Your task to perform on an android device: Set an alarm for 8am Image 0: 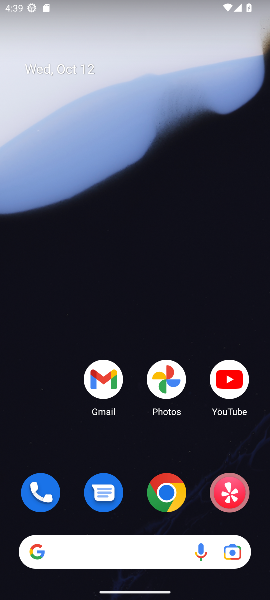
Step 0: drag from (140, 450) to (159, 72)
Your task to perform on an android device: Set an alarm for 8am Image 1: 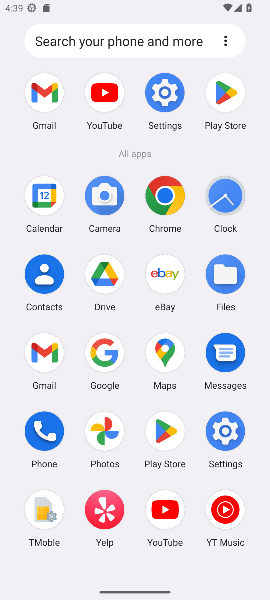
Step 1: click (229, 195)
Your task to perform on an android device: Set an alarm for 8am Image 2: 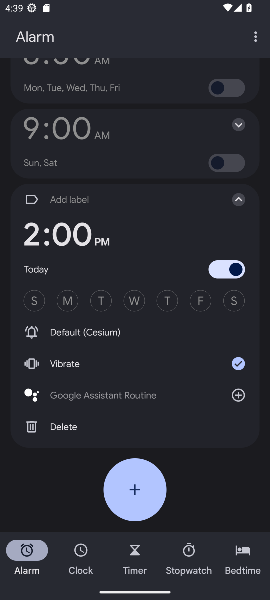
Step 2: click (135, 492)
Your task to perform on an android device: Set an alarm for 8am Image 3: 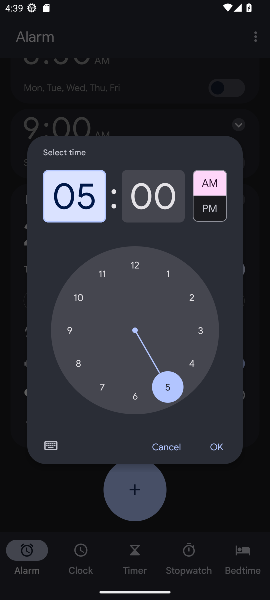
Step 3: click (76, 366)
Your task to perform on an android device: Set an alarm for 8am Image 4: 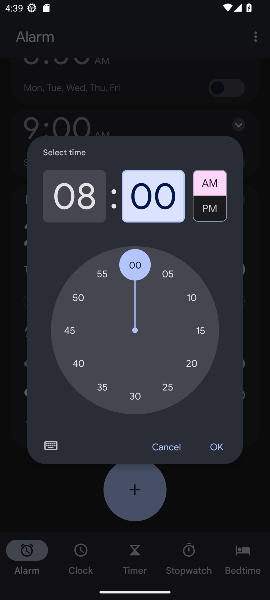
Step 4: click (219, 175)
Your task to perform on an android device: Set an alarm for 8am Image 5: 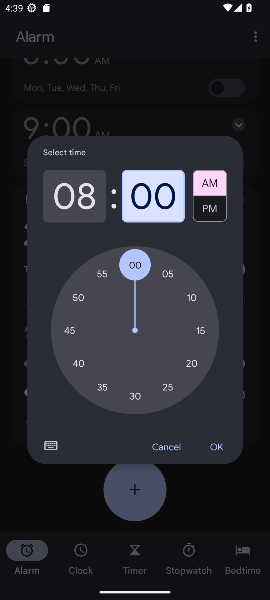
Step 5: click (215, 448)
Your task to perform on an android device: Set an alarm for 8am Image 6: 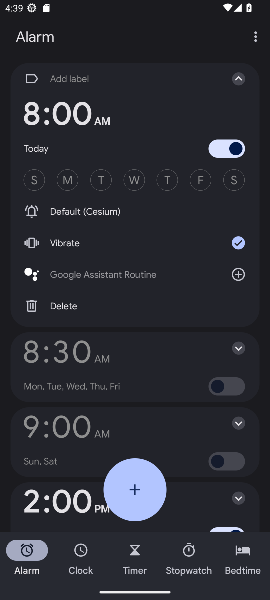
Step 6: task complete